Your task to perform on an android device: open wifi settings Image 0: 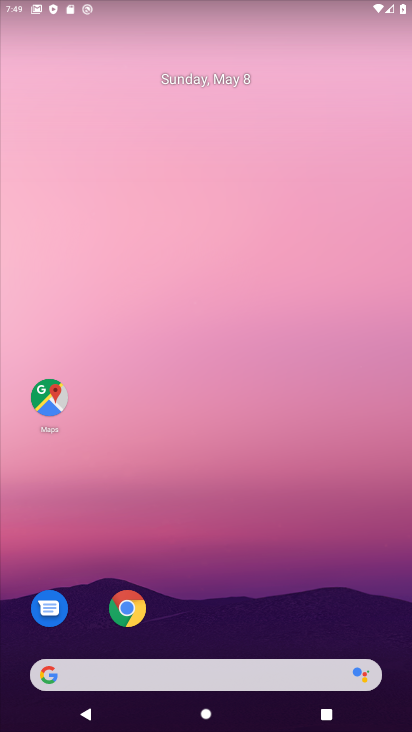
Step 0: drag from (292, 608) to (372, 204)
Your task to perform on an android device: open wifi settings Image 1: 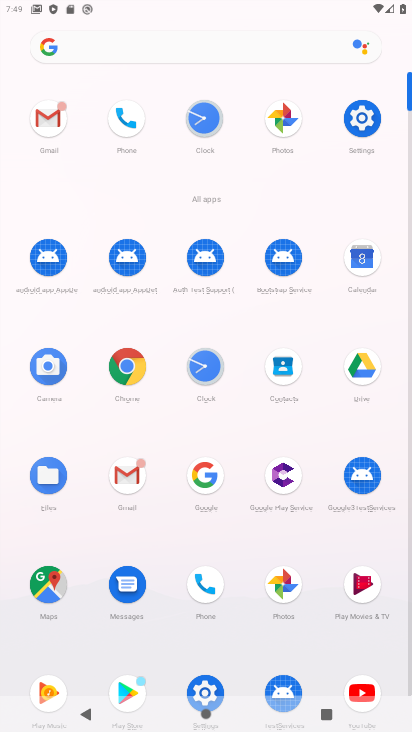
Step 1: click (366, 113)
Your task to perform on an android device: open wifi settings Image 2: 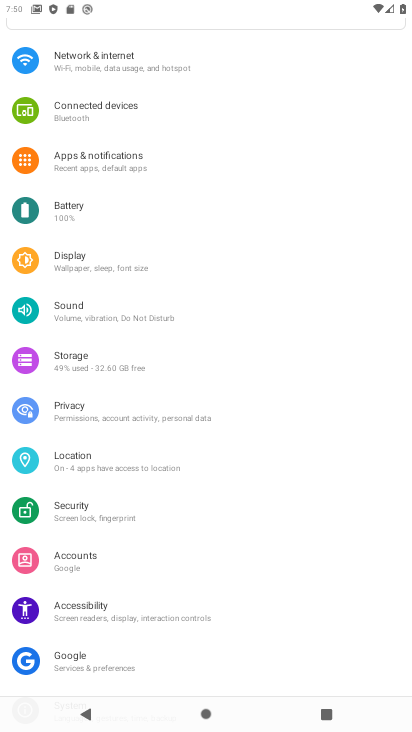
Step 2: click (143, 60)
Your task to perform on an android device: open wifi settings Image 3: 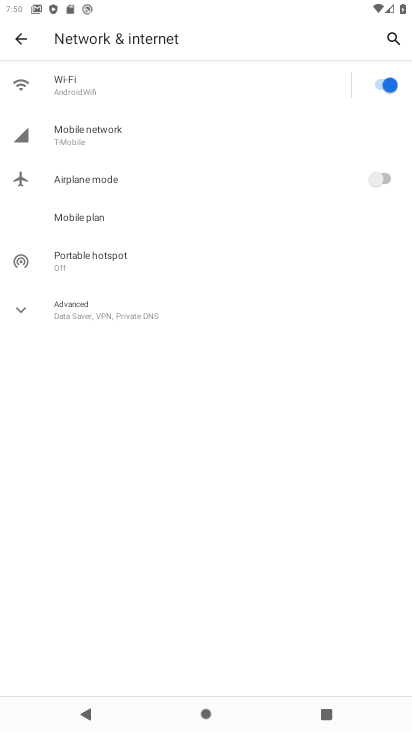
Step 3: click (139, 79)
Your task to perform on an android device: open wifi settings Image 4: 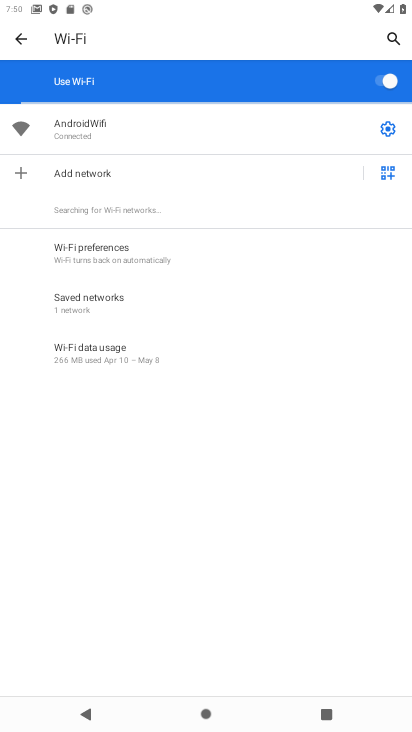
Step 4: task complete